Your task to perform on an android device: move an email to a new category in the gmail app Image 0: 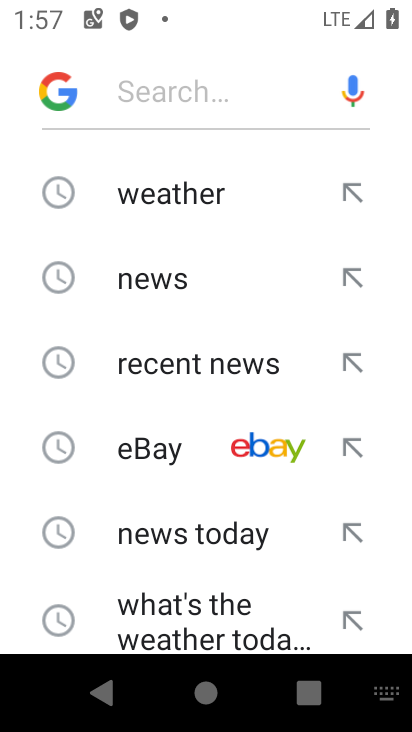
Step 0: press home button
Your task to perform on an android device: move an email to a new category in the gmail app Image 1: 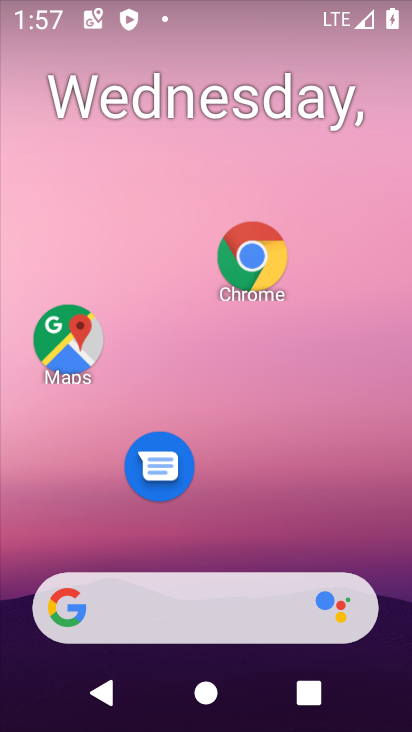
Step 1: drag from (190, 529) to (202, 26)
Your task to perform on an android device: move an email to a new category in the gmail app Image 2: 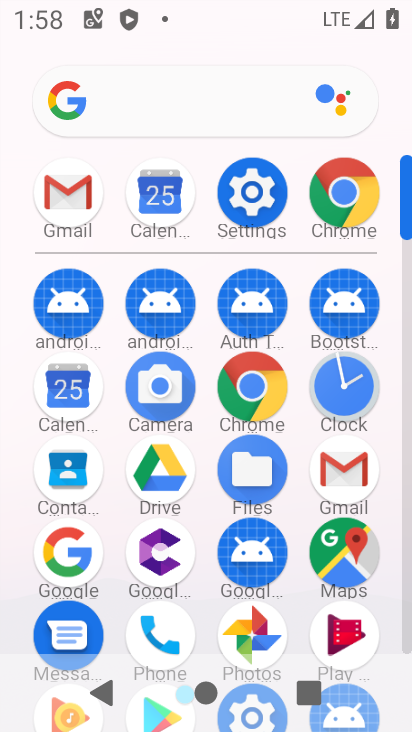
Step 2: click (348, 468)
Your task to perform on an android device: move an email to a new category in the gmail app Image 3: 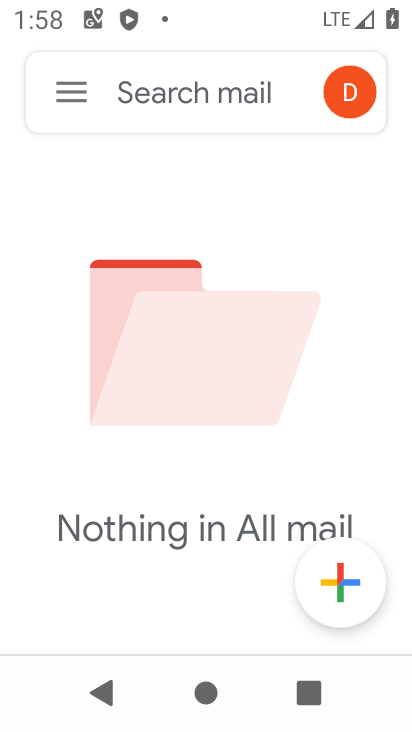
Step 3: click (62, 94)
Your task to perform on an android device: move an email to a new category in the gmail app Image 4: 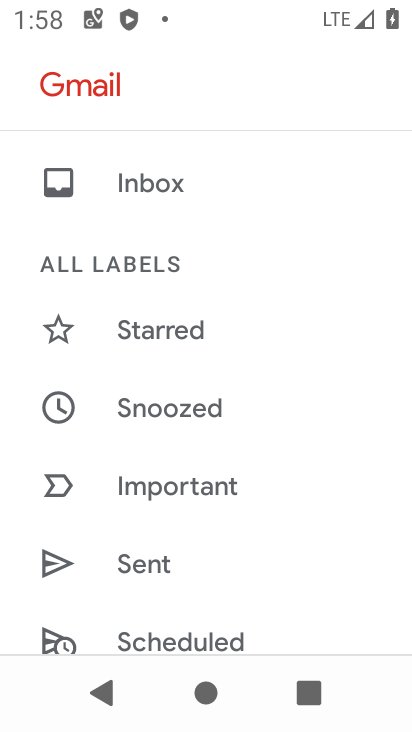
Step 4: click (143, 170)
Your task to perform on an android device: move an email to a new category in the gmail app Image 5: 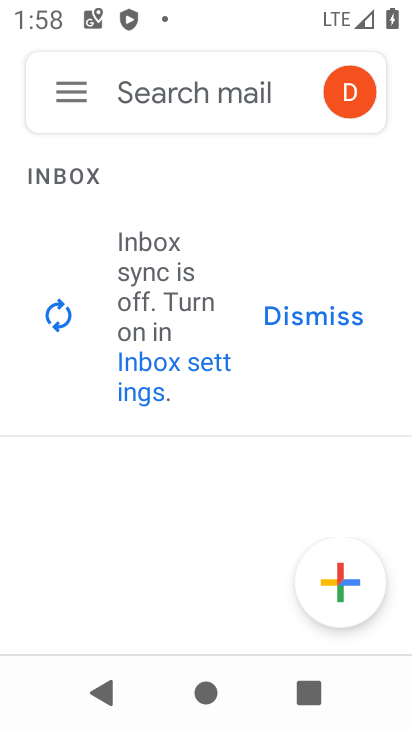
Step 5: task complete